Your task to perform on an android device: Go to display settings Image 0: 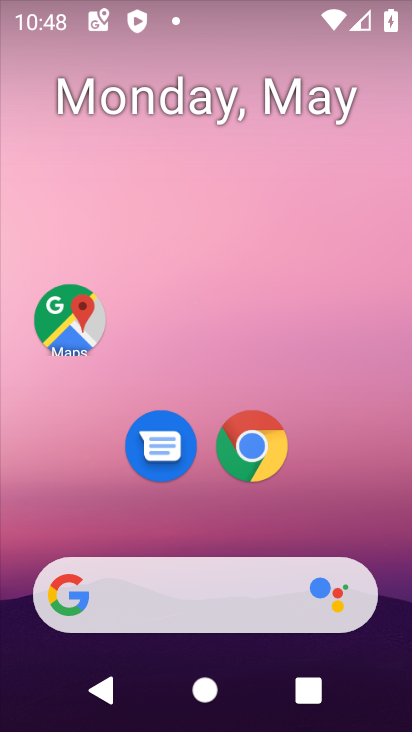
Step 0: drag from (257, 569) to (60, 14)
Your task to perform on an android device: Go to display settings Image 1: 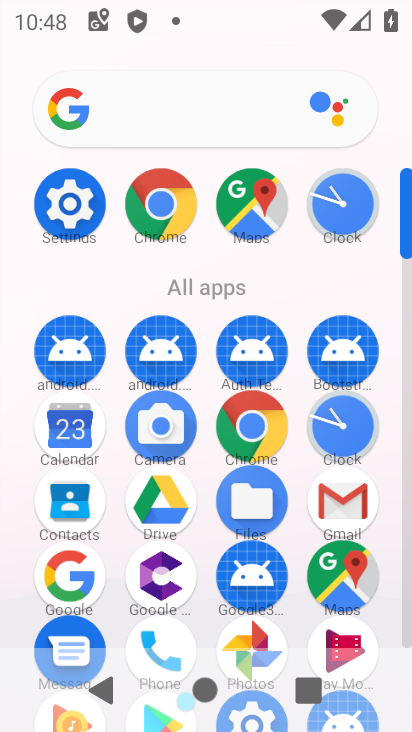
Step 1: click (68, 219)
Your task to perform on an android device: Go to display settings Image 2: 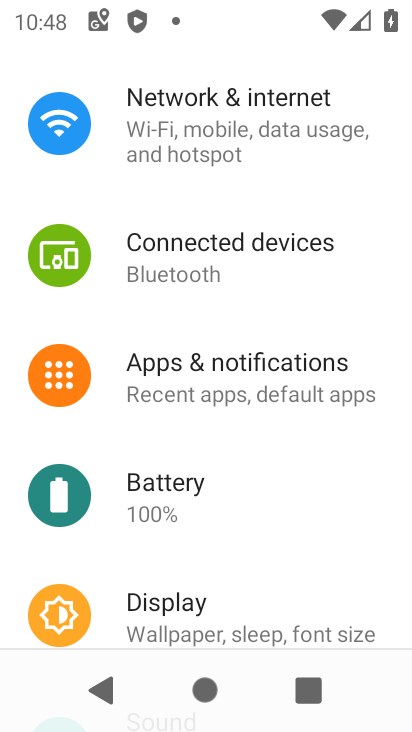
Step 2: click (202, 600)
Your task to perform on an android device: Go to display settings Image 3: 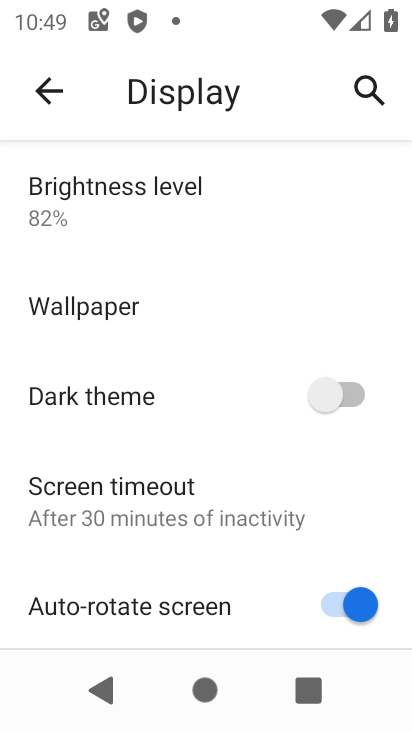
Step 3: task complete